Your task to perform on an android device: turn off priority inbox in the gmail app Image 0: 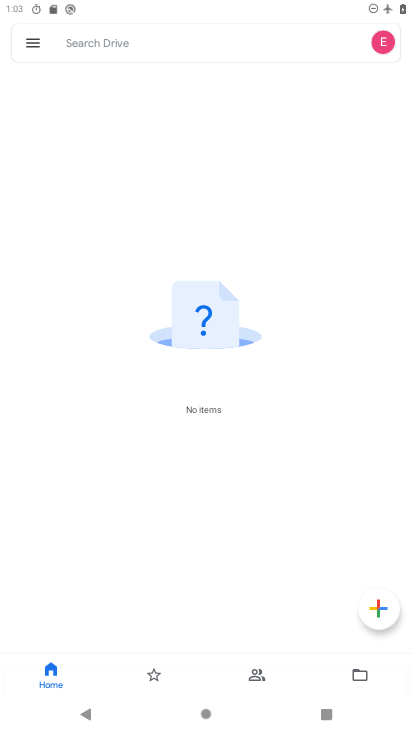
Step 0: press home button
Your task to perform on an android device: turn off priority inbox in the gmail app Image 1: 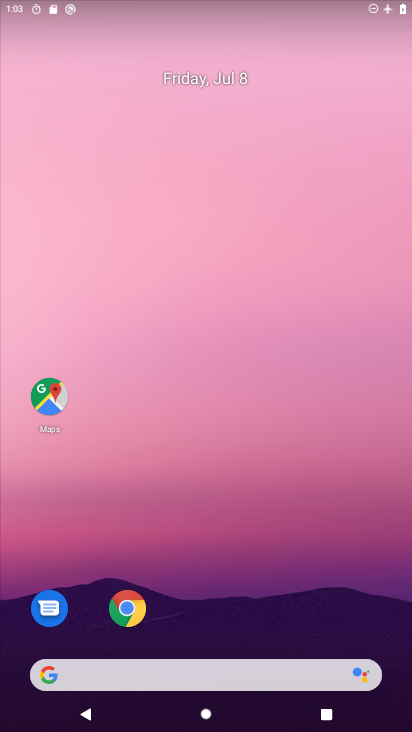
Step 1: drag from (246, 708) to (292, 26)
Your task to perform on an android device: turn off priority inbox in the gmail app Image 2: 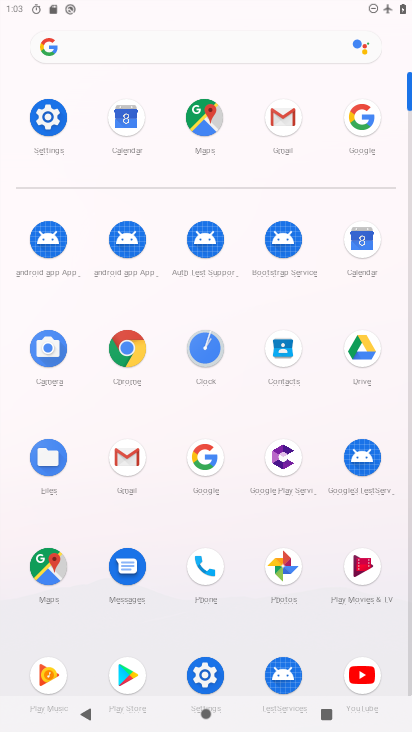
Step 2: click (284, 108)
Your task to perform on an android device: turn off priority inbox in the gmail app Image 3: 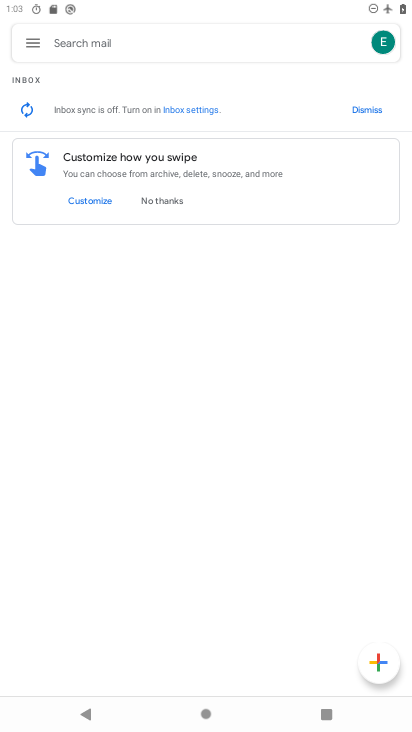
Step 3: click (31, 43)
Your task to perform on an android device: turn off priority inbox in the gmail app Image 4: 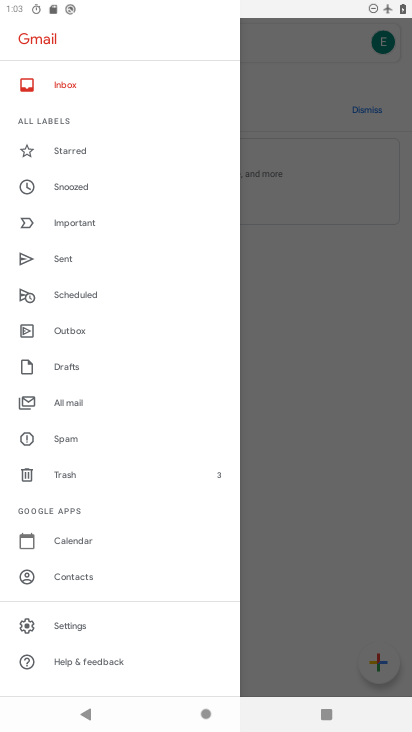
Step 4: click (66, 621)
Your task to perform on an android device: turn off priority inbox in the gmail app Image 5: 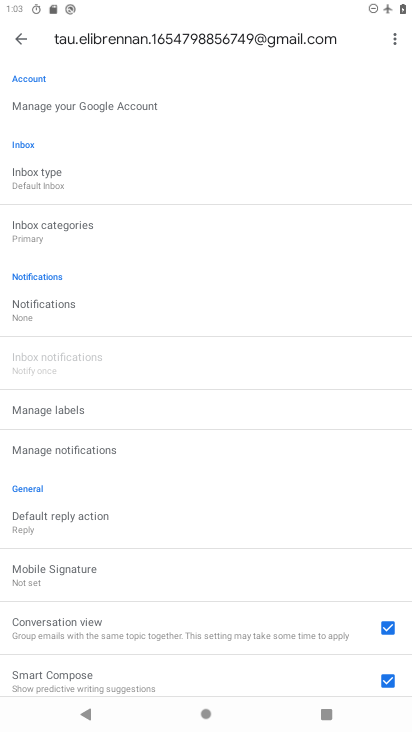
Step 5: task complete